Your task to perform on an android device: Turn on the flashlight Image 0: 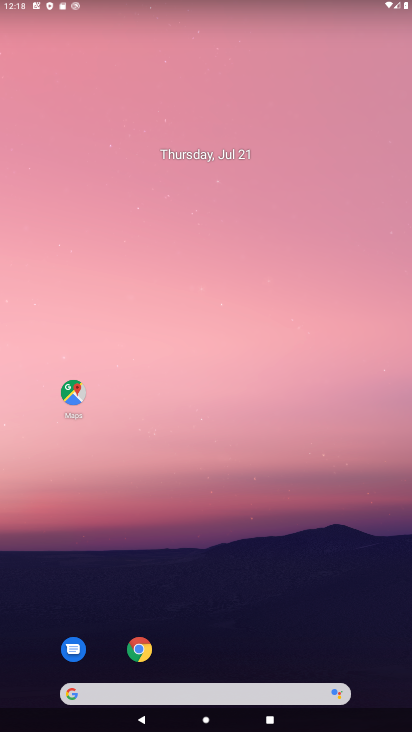
Step 0: drag from (229, 677) to (221, 187)
Your task to perform on an android device: Turn on the flashlight Image 1: 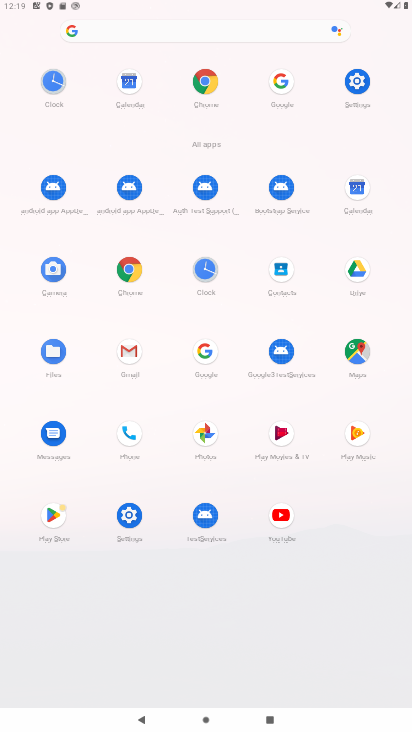
Step 1: click (358, 81)
Your task to perform on an android device: Turn on the flashlight Image 2: 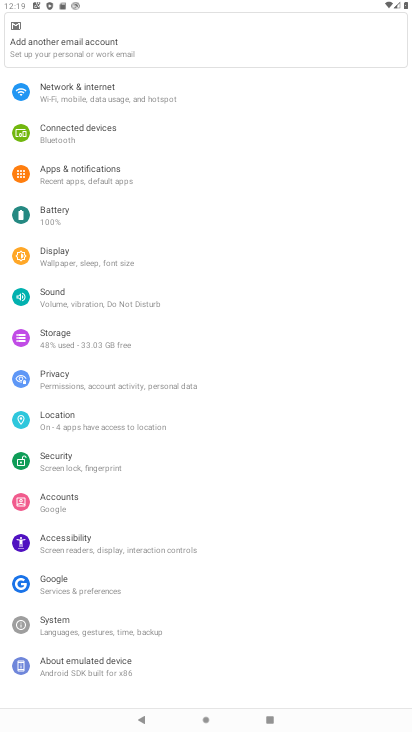
Step 2: task complete